Your task to perform on an android device: Open the map Image 0: 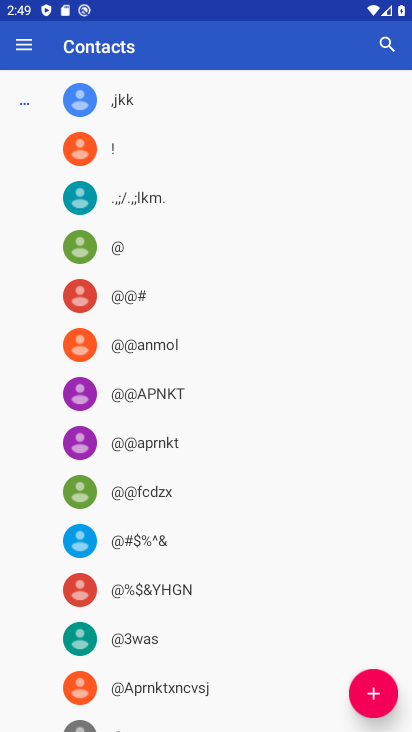
Step 0: press back button
Your task to perform on an android device: Open the map Image 1: 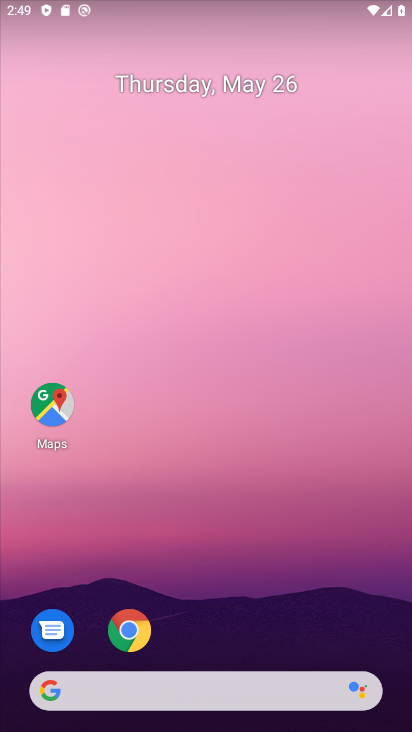
Step 1: click (48, 406)
Your task to perform on an android device: Open the map Image 2: 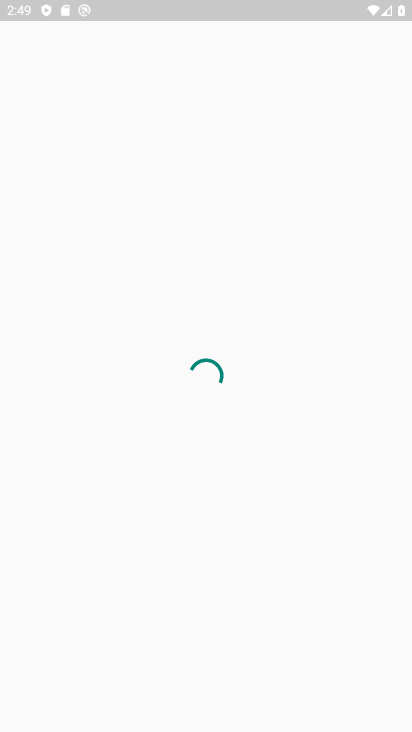
Step 2: task complete